Your task to perform on an android device: open app "WhatsApp Messenger" (install if not already installed) and enter user name: "cartons@outlook.com" and password: "approximated" Image 0: 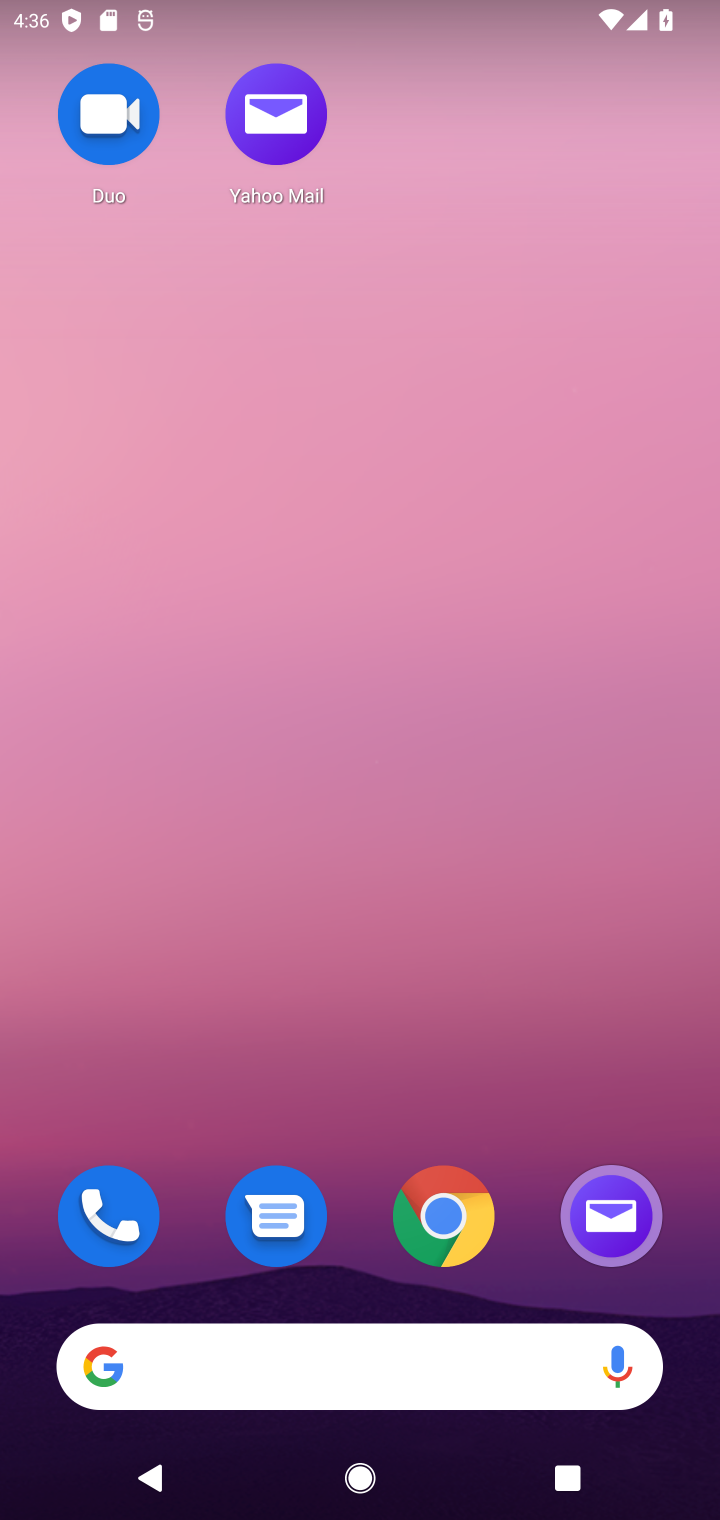
Step 0: drag from (413, 907) to (426, 203)
Your task to perform on an android device: open app "WhatsApp Messenger" (install if not already installed) and enter user name: "cartons@outlook.com" and password: "approximated" Image 1: 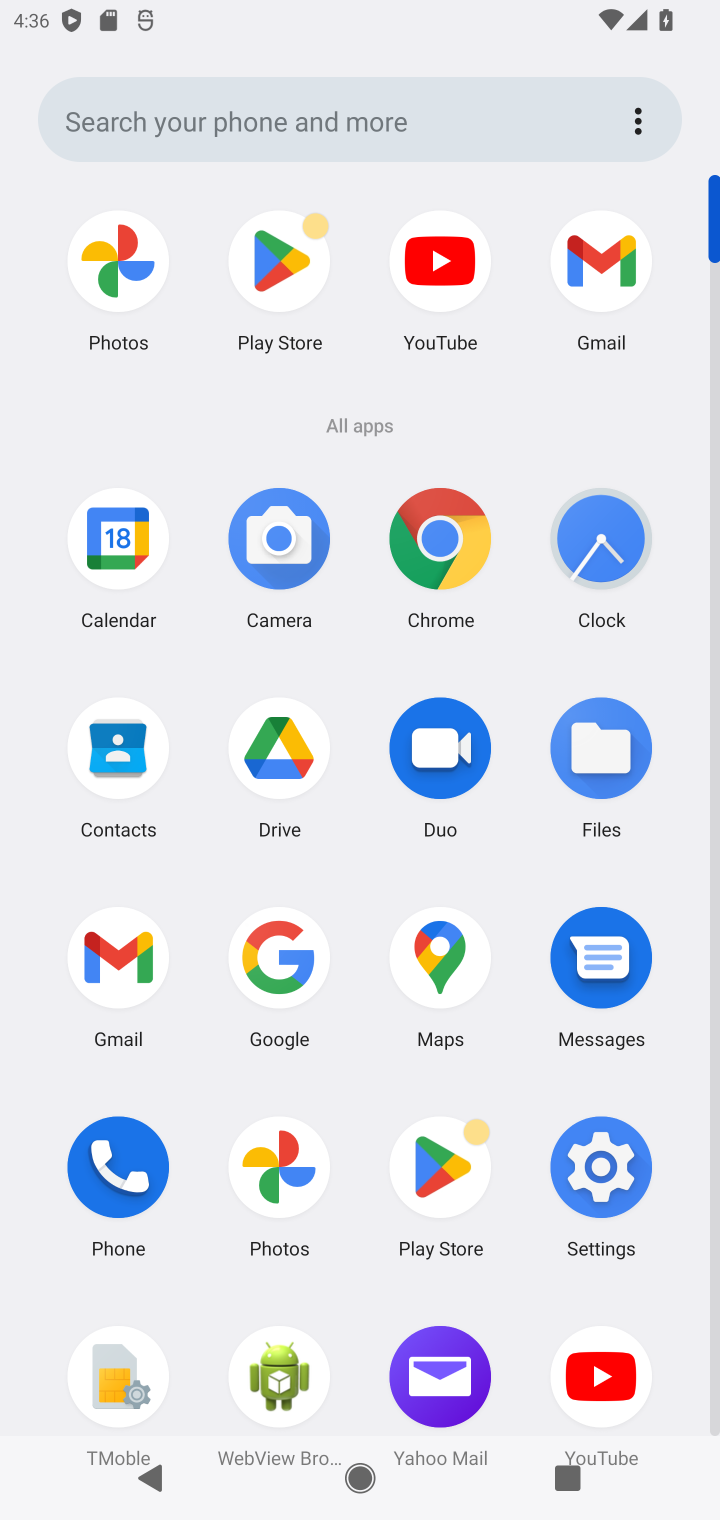
Step 1: click (282, 276)
Your task to perform on an android device: open app "WhatsApp Messenger" (install if not already installed) and enter user name: "cartons@outlook.com" and password: "approximated" Image 2: 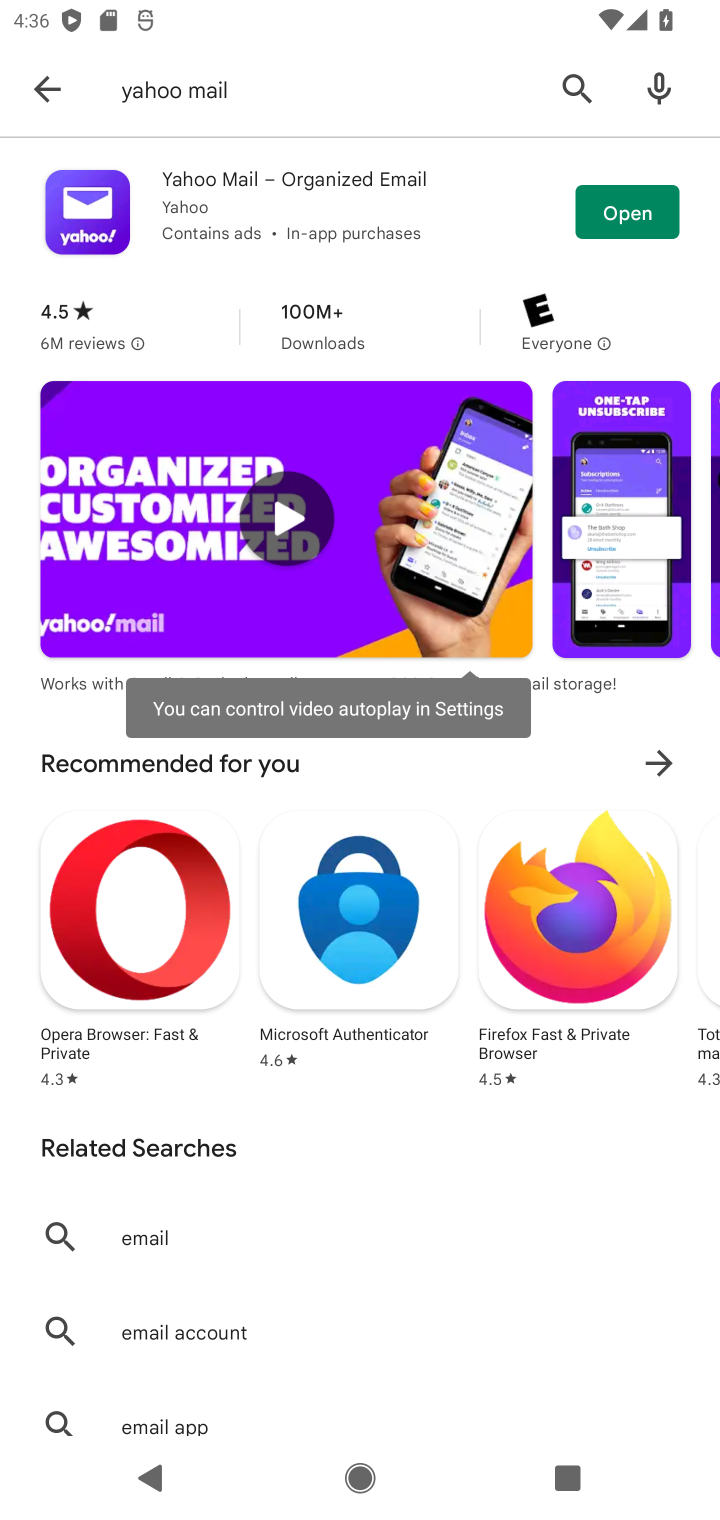
Step 2: click (577, 94)
Your task to perform on an android device: open app "WhatsApp Messenger" (install if not already installed) and enter user name: "cartons@outlook.com" and password: "approximated" Image 3: 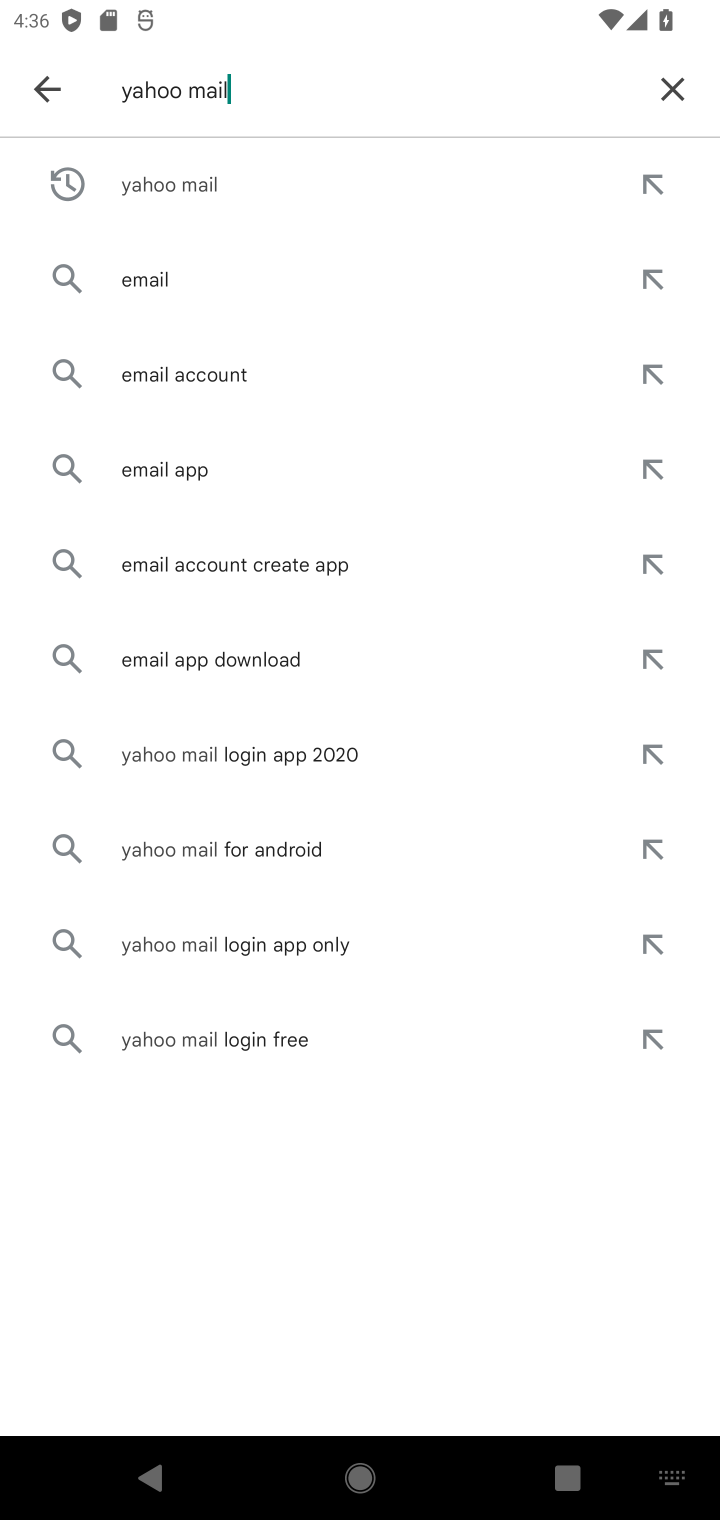
Step 3: click (671, 73)
Your task to perform on an android device: open app "WhatsApp Messenger" (install if not already installed) and enter user name: "cartons@outlook.com" and password: "approximated" Image 4: 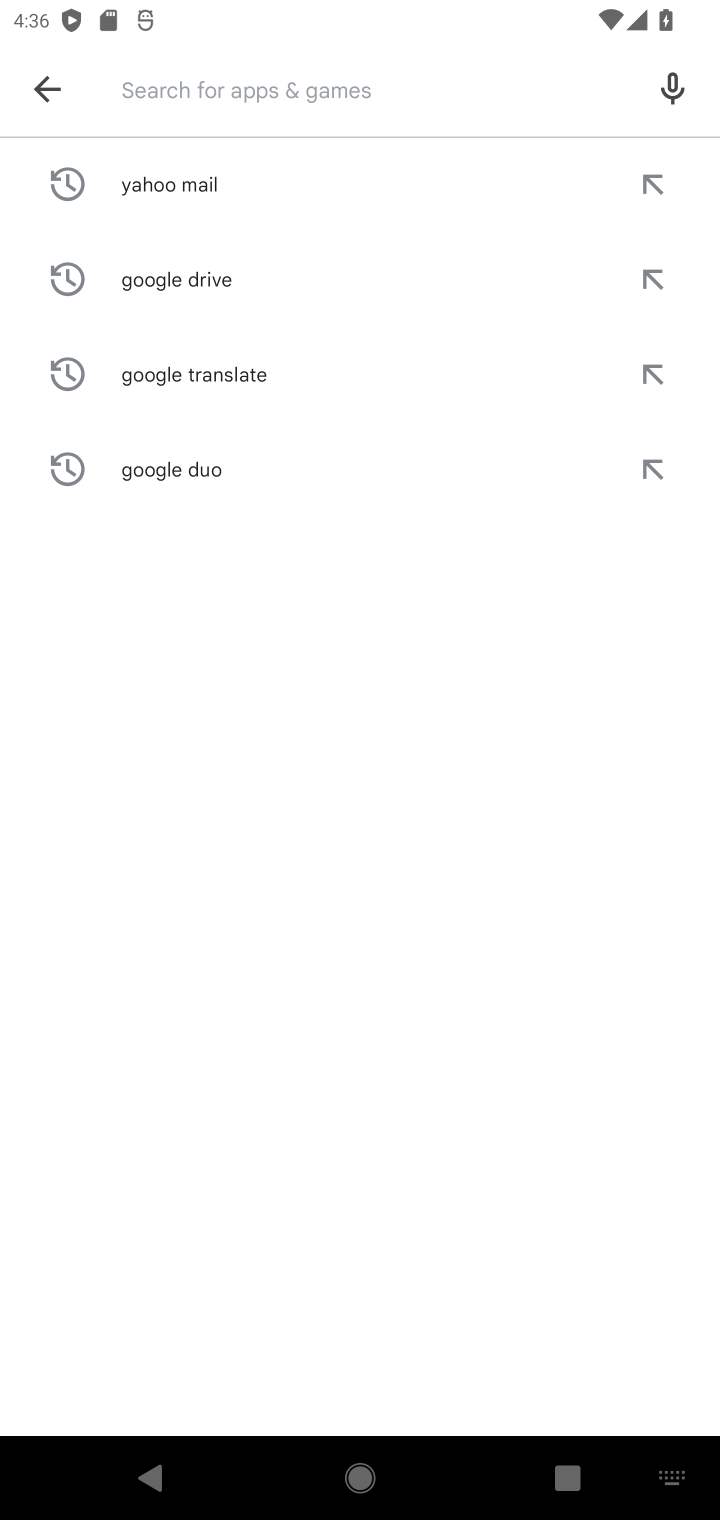
Step 4: type "WhatsApp Messenger"
Your task to perform on an android device: open app "WhatsApp Messenger" (install if not already installed) and enter user name: "cartons@outlook.com" and password: "approximated" Image 5: 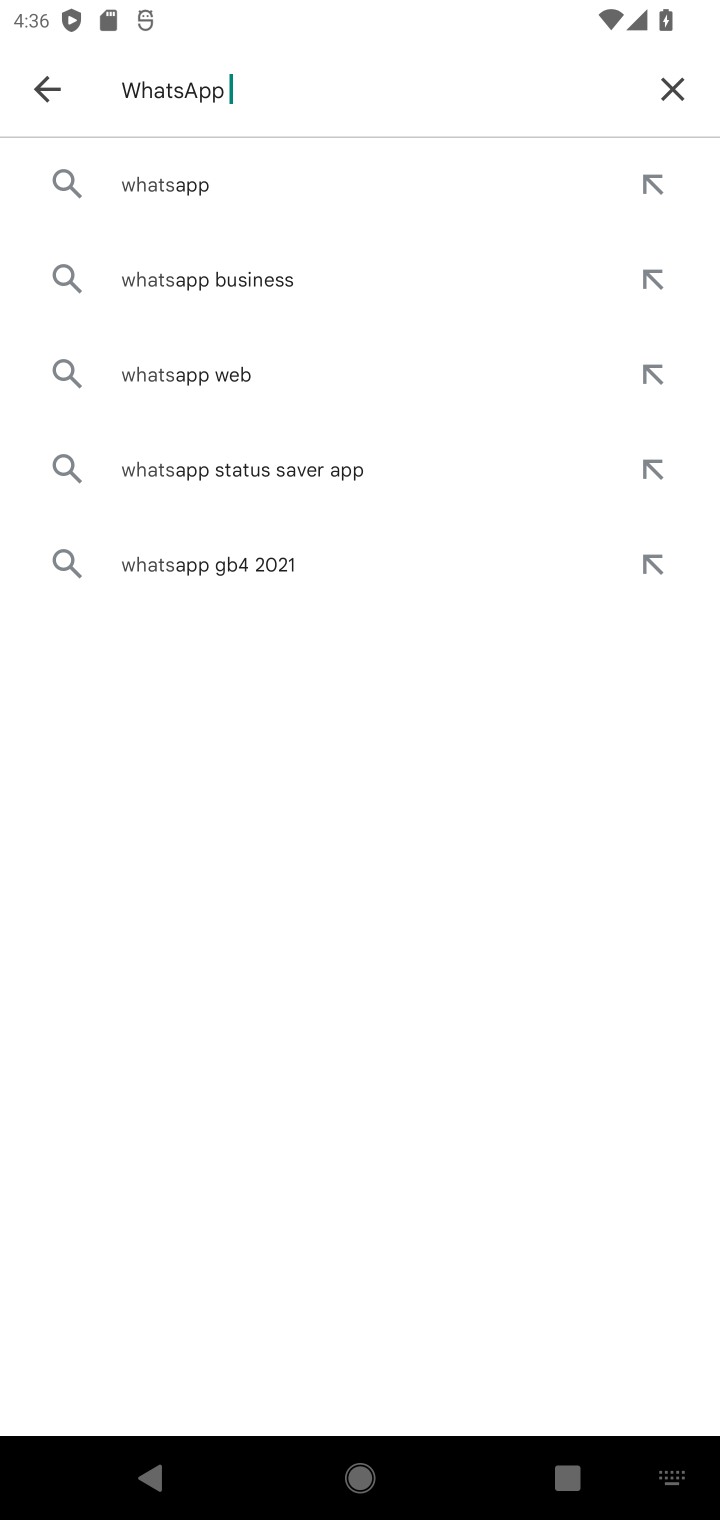
Step 5: type ""
Your task to perform on an android device: open app "WhatsApp Messenger" (install if not already installed) and enter user name: "cartons@outlook.com" and password: "approximated" Image 6: 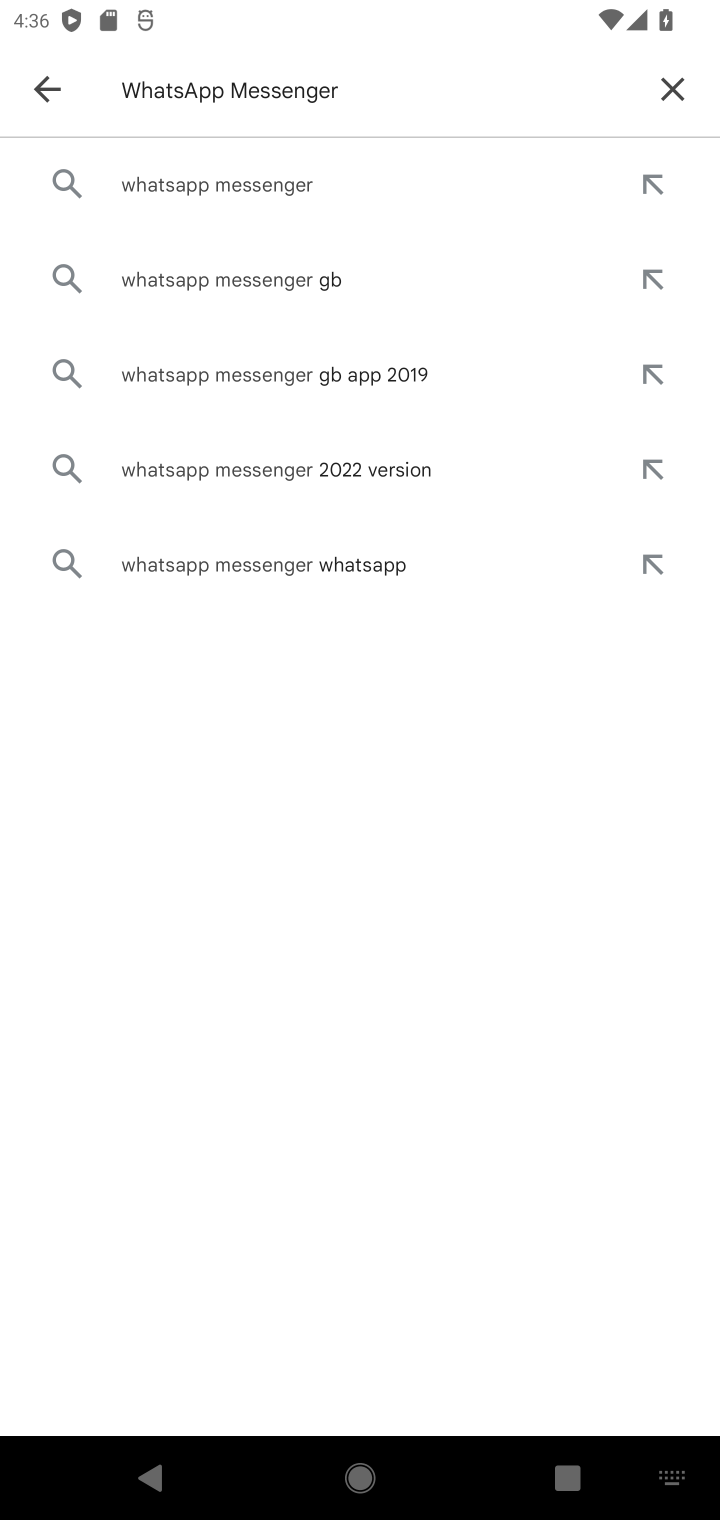
Step 6: click (236, 167)
Your task to perform on an android device: open app "WhatsApp Messenger" (install if not already installed) and enter user name: "cartons@outlook.com" and password: "approximated" Image 7: 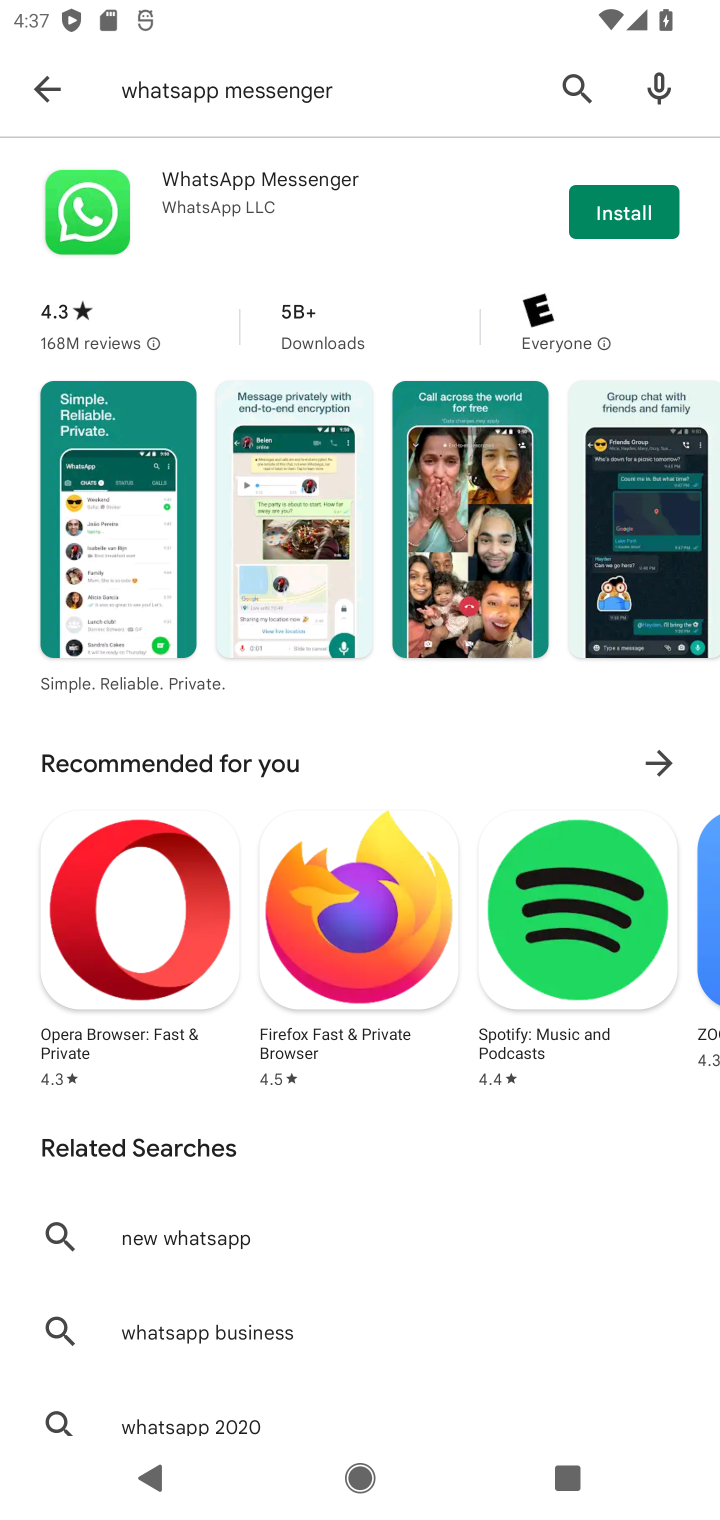
Step 7: click (638, 204)
Your task to perform on an android device: open app "WhatsApp Messenger" (install if not already installed) and enter user name: "cartons@outlook.com" and password: "approximated" Image 8: 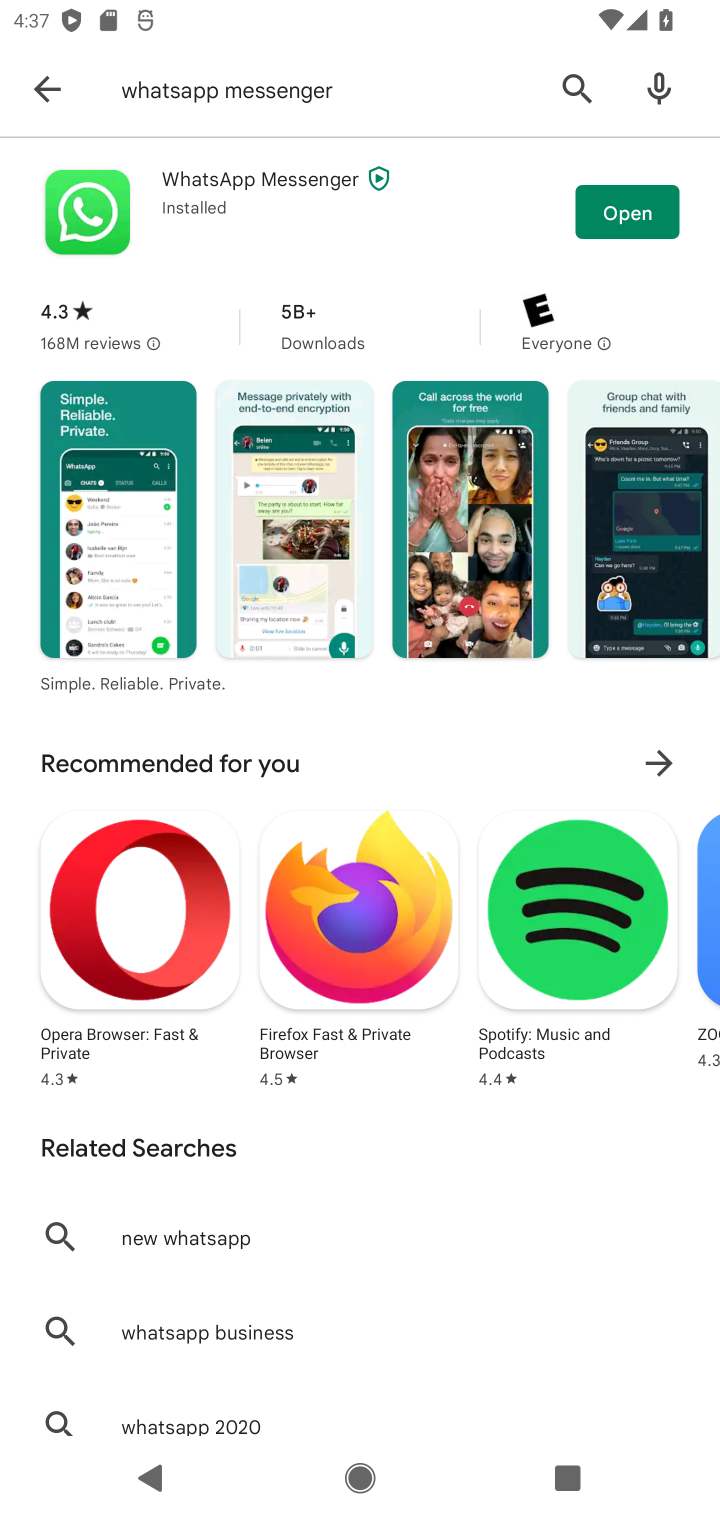
Step 8: click (586, 213)
Your task to perform on an android device: open app "WhatsApp Messenger" (install if not already installed) and enter user name: "cartons@outlook.com" and password: "approximated" Image 9: 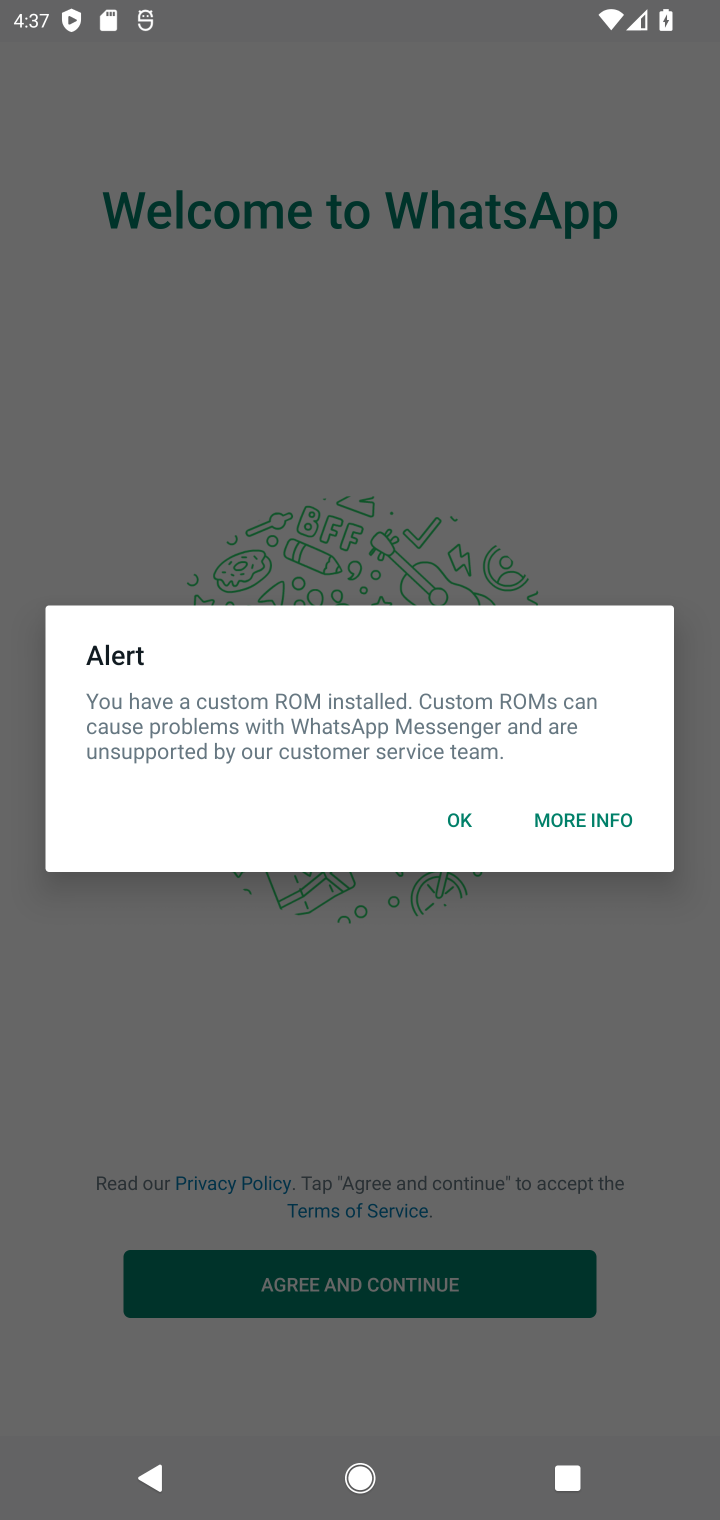
Step 9: click (449, 817)
Your task to perform on an android device: open app "WhatsApp Messenger" (install if not already installed) and enter user name: "cartons@outlook.com" and password: "approximated" Image 10: 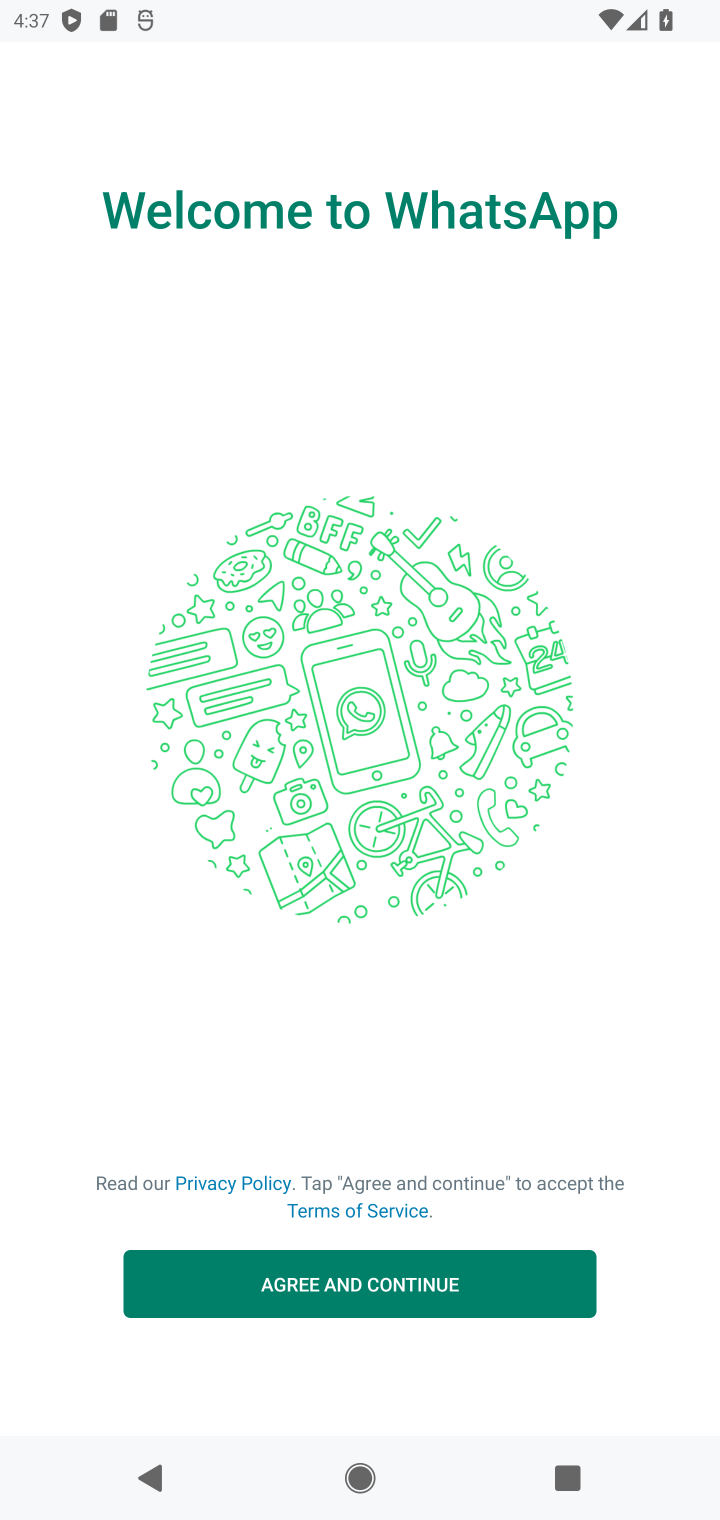
Step 10: click (367, 1269)
Your task to perform on an android device: open app "WhatsApp Messenger" (install if not already installed) and enter user name: "cartons@outlook.com" and password: "approximated" Image 11: 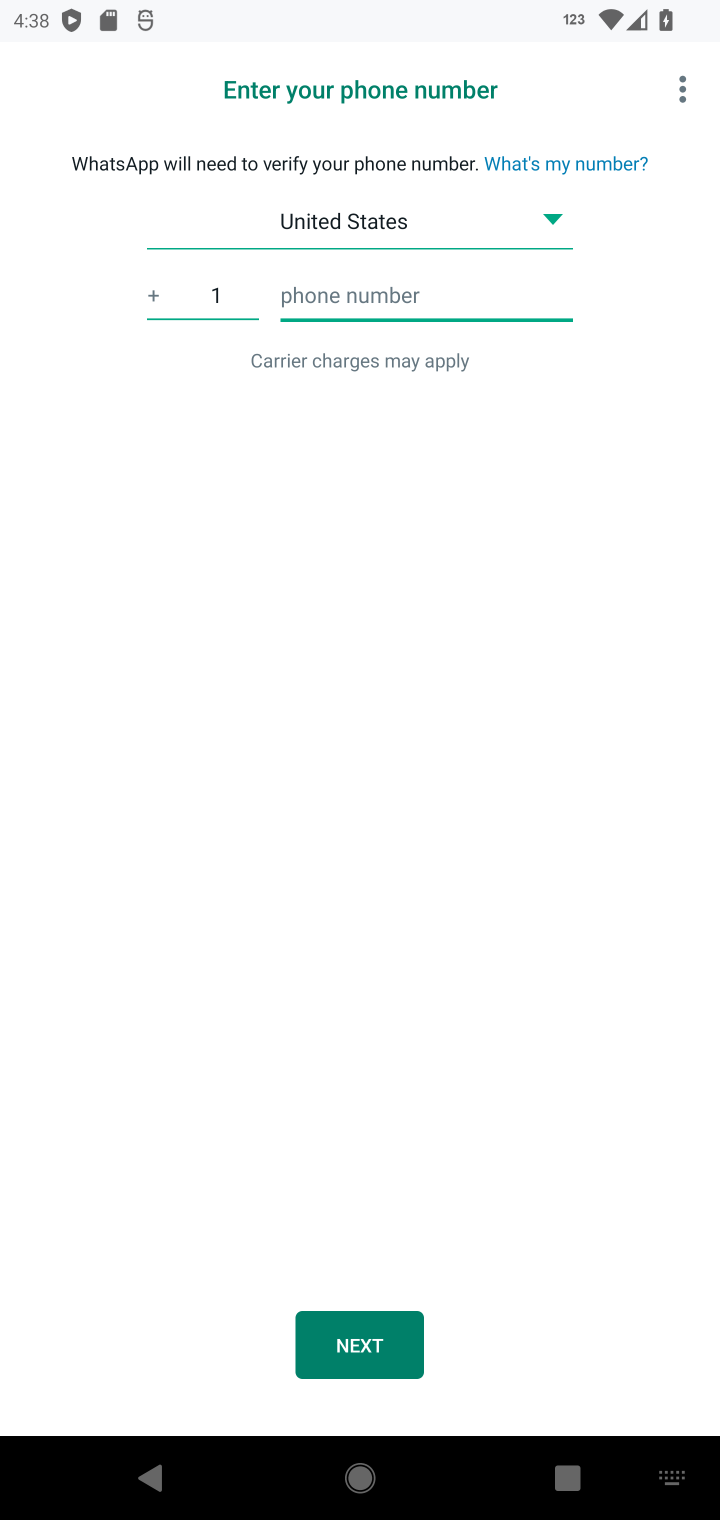
Step 11: task complete